Your task to perform on an android device: turn on notifications settings in the gmail app Image 0: 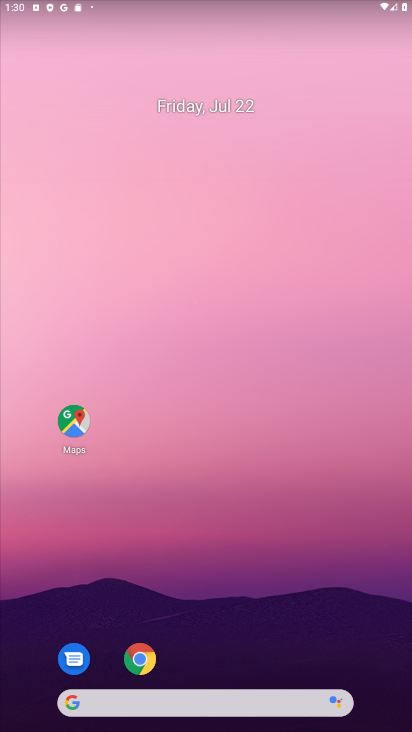
Step 0: press home button
Your task to perform on an android device: turn on notifications settings in the gmail app Image 1: 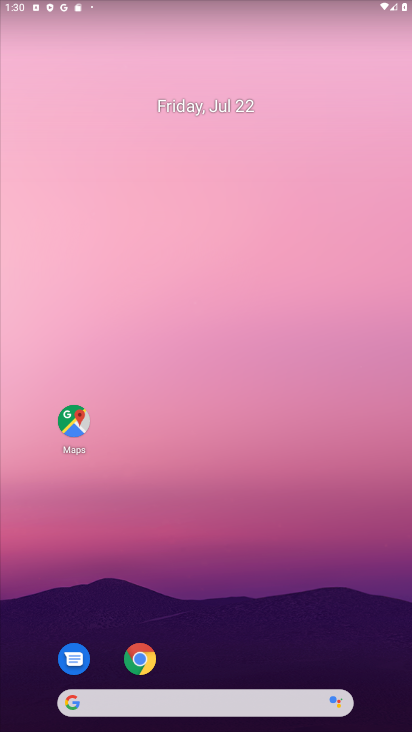
Step 1: drag from (260, 706) to (288, 152)
Your task to perform on an android device: turn on notifications settings in the gmail app Image 2: 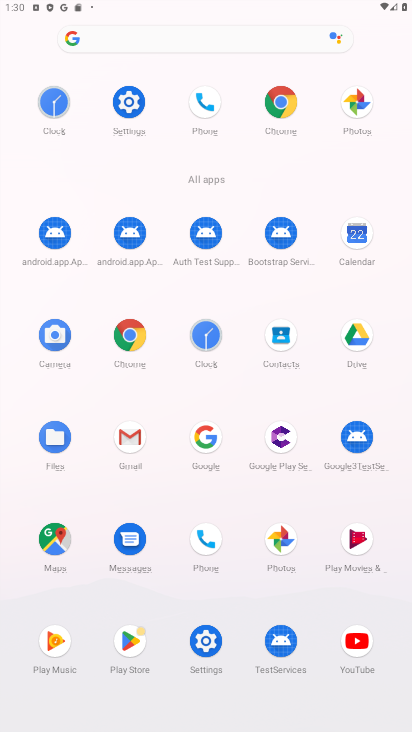
Step 2: click (123, 441)
Your task to perform on an android device: turn on notifications settings in the gmail app Image 3: 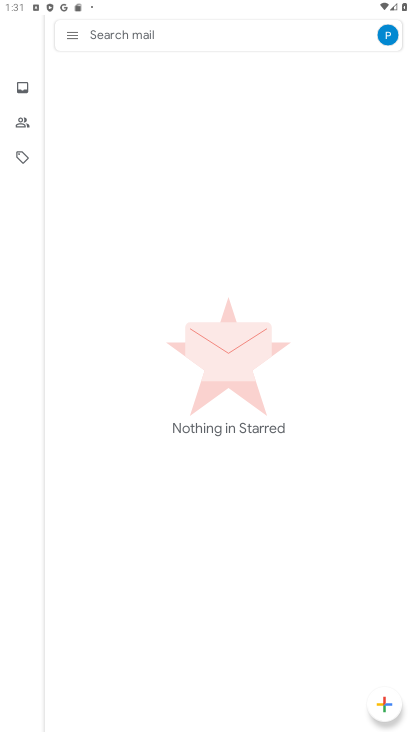
Step 3: click (67, 26)
Your task to perform on an android device: turn on notifications settings in the gmail app Image 4: 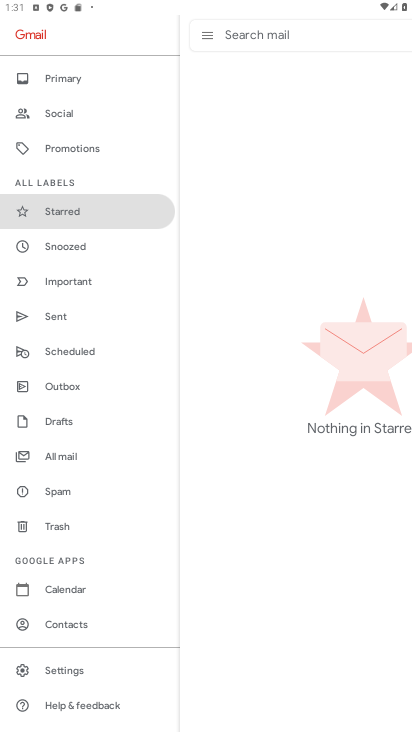
Step 4: click (59, 665)
Your task to perform on an android device: turn on notifications settings in the gmail app Image 5: 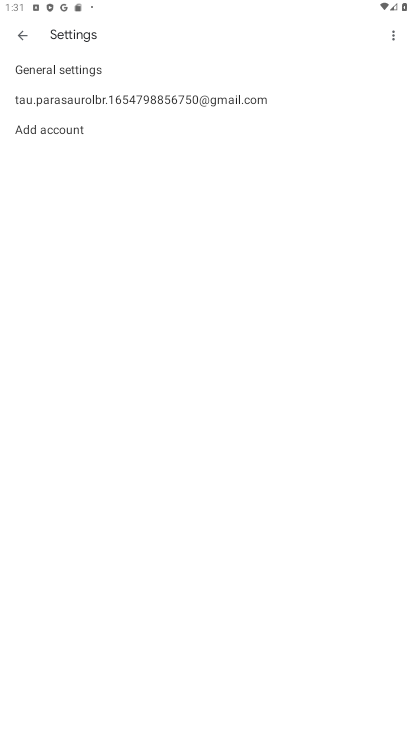
Step 5: click (144, 100)
Your task to perform on an android device: turn on notifications settings in the gmail app Image 6: 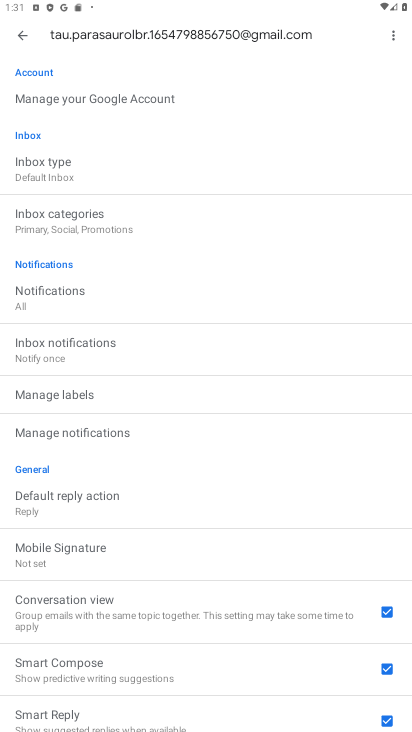
Step 6: click (54, 289)
Your task to perform on an android device: turn on notifications settings in the gmail app Image 7: 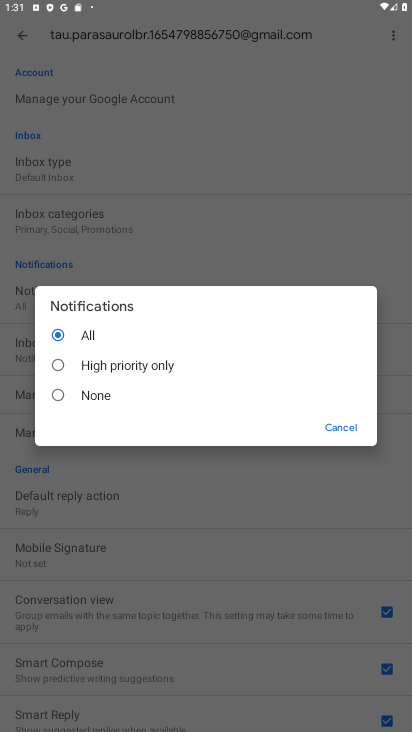
Step 7: task complete